Your task to perform on an android device: change text size in settings app Image 0: 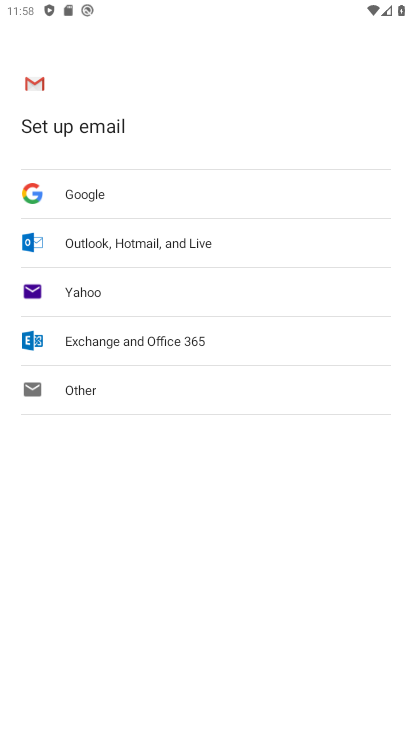
Step 0: press home button
Your task to perform on an android device: change text size in settings app Image 1: 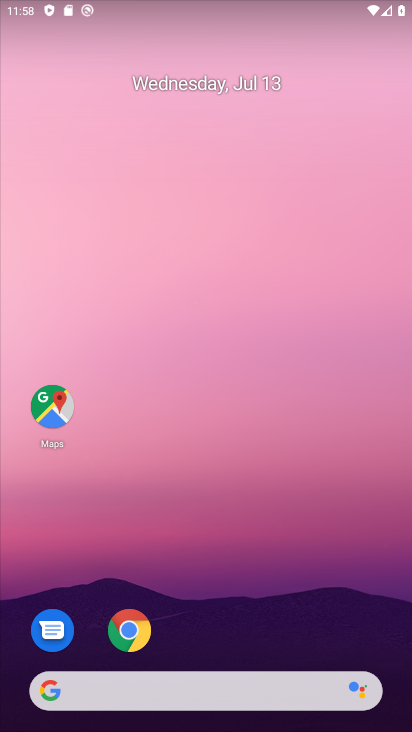
Step 1: drag from (290, 581) to (329, 104)
Your task to perform on an android device: change text size in settings app Image 2: 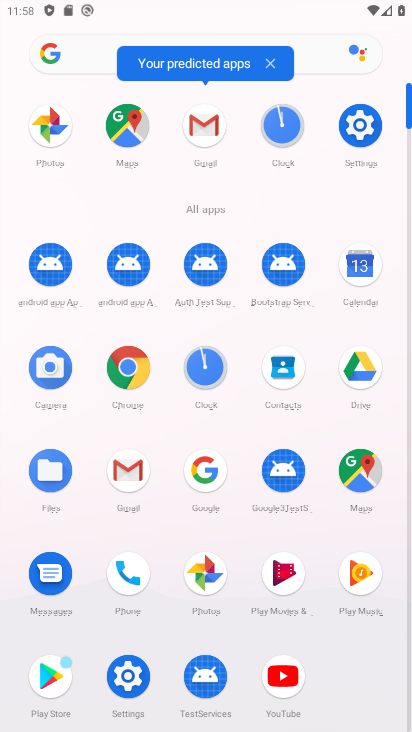
Step 2: click (362, 138)
Your task to perform on an android device: change text size in settings app Image 3: 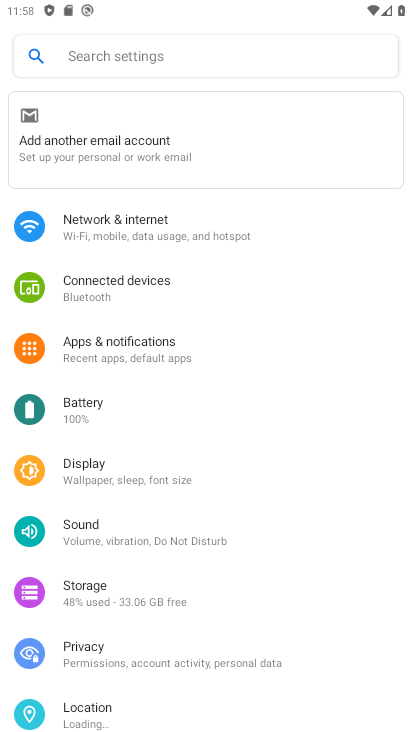
Step 3: click (130, 477)
Your task to perform on an android device: change text size in settings app Image 4: 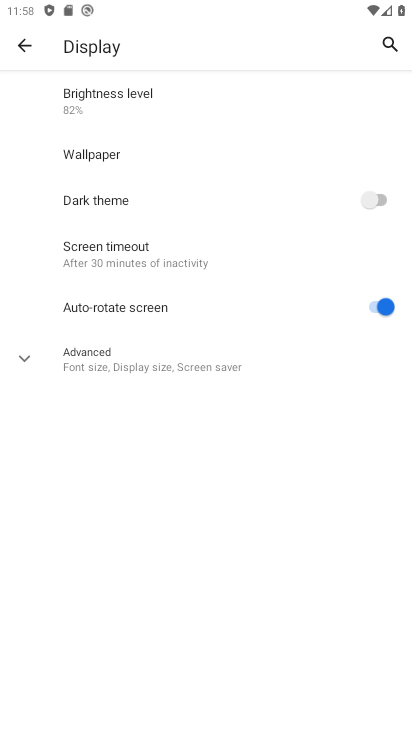
Step 4: click (160, 358)
Your task to perform on an android device: change text size in settings app Image 5: 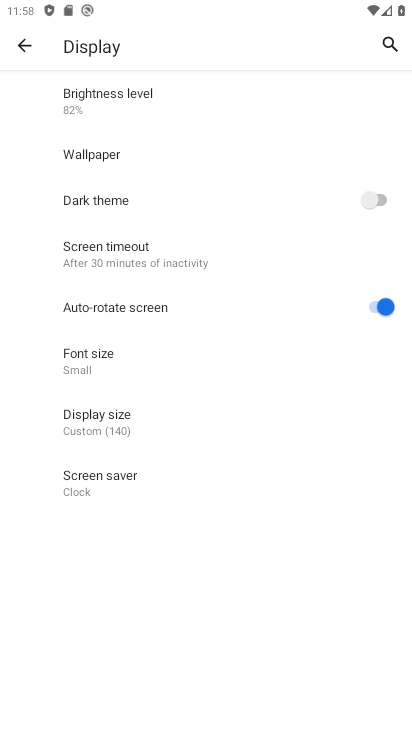
Step 5: click (123, 351)
Your task to perform on an android device: change text size in settings app Image 6: 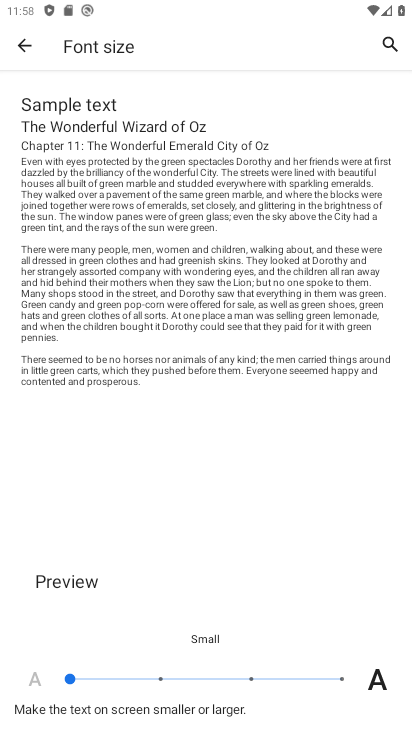
Step 6: click (164, 673)
Your task to perform on an android device: change text size in settings app Image 7: 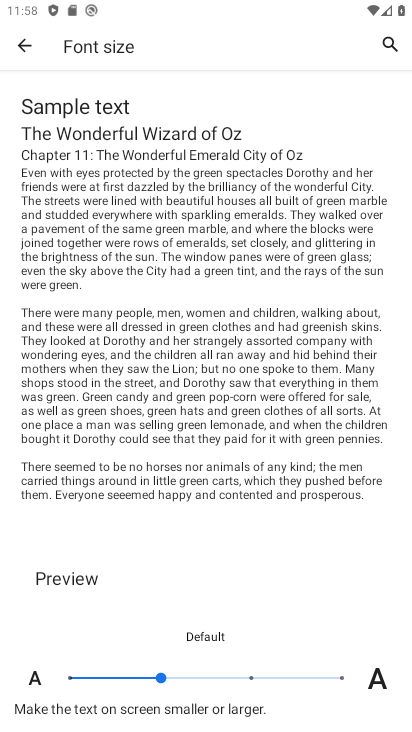
Step 7: task complete